Your task to perform on an android device: add a label to a message in the gmail app Image 0: 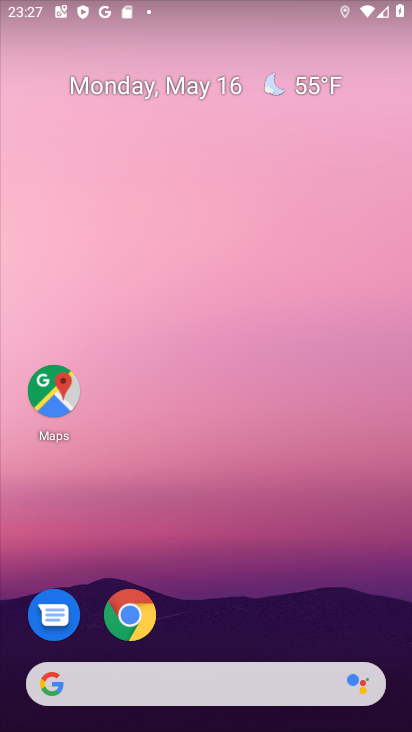
Step 0: drag from (235, 647) to (183, 32)
Your task to perform on an android device: add a label to a message in the gmail app Image 1: 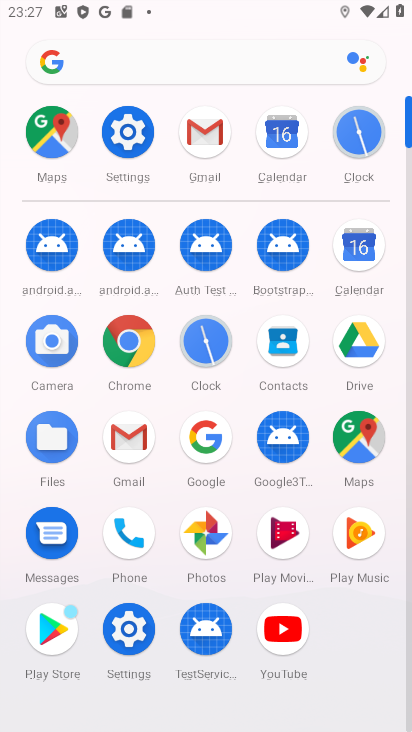
Step 1: click (125, 433)
Your task to perform on an android device: add a label to a message in the gmail app Image 2: 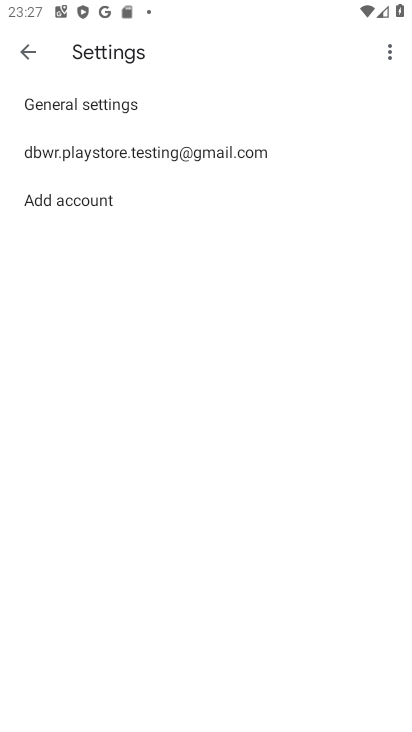
Step 2: click (51, 43)
Your task to perform on an android device: add a label to a message in the gmail app Image 3: 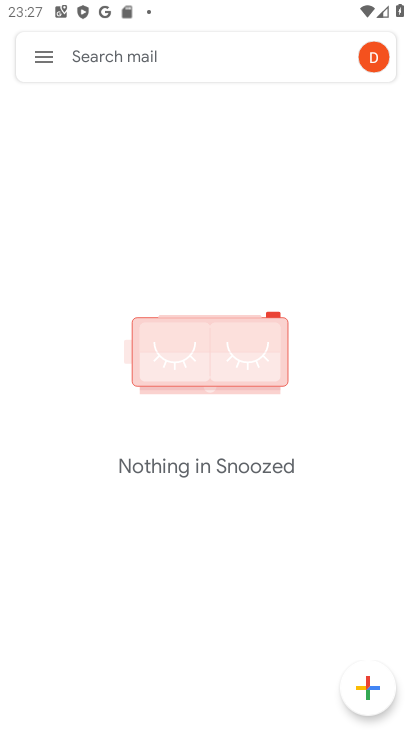
Step 3: task complete